Your task to perform on an android device: open device folders in google photos Image 0: 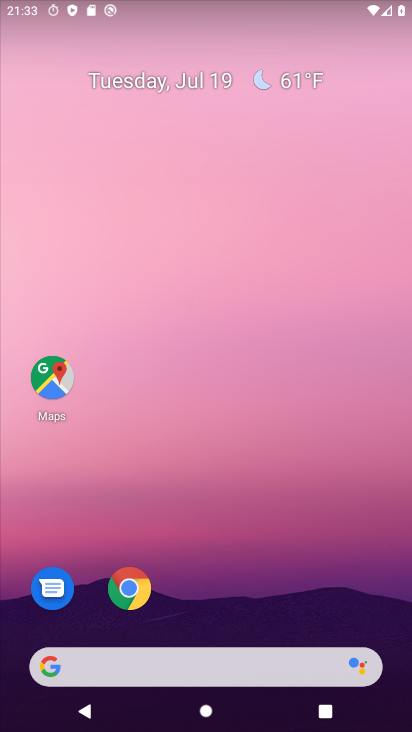
Step 0: press home button
Your task to perform on an android device: open device folders in google photos Image 1: 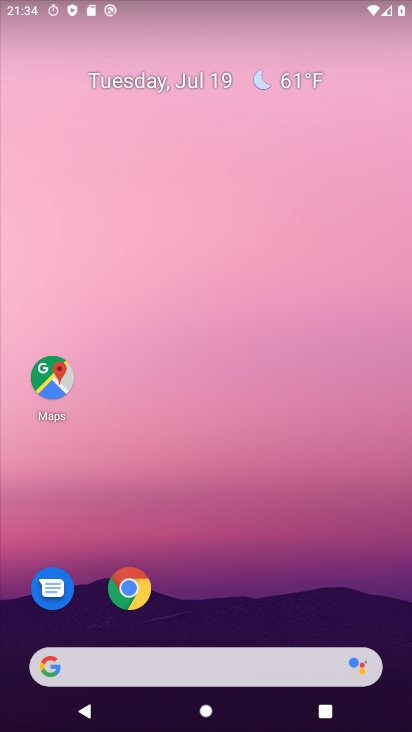
Step 1: drag from (227, 632) to (232, 3)
Your task to perform on an android device: open device folders in google photos Image 2: 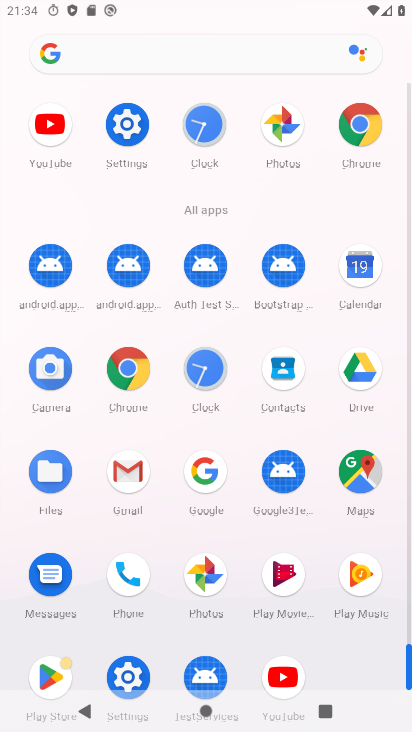
Step 2: click (280, 115)
Your task to perform on an android device: open device folders in google photos Image 3: 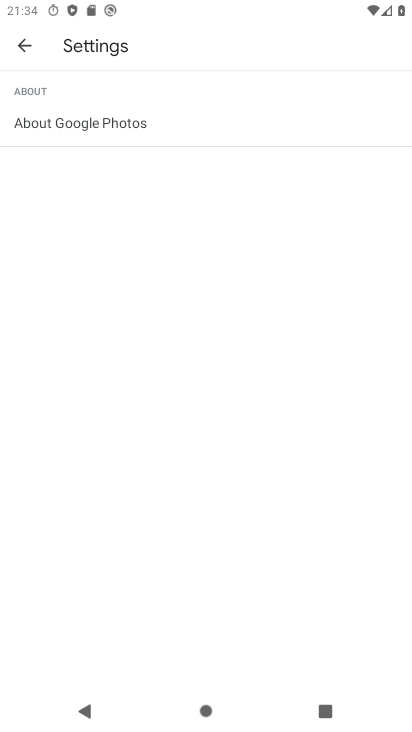
Step 3: click (25, 45)
Your task to perform on an android device: open device folders in google photos Image 4: 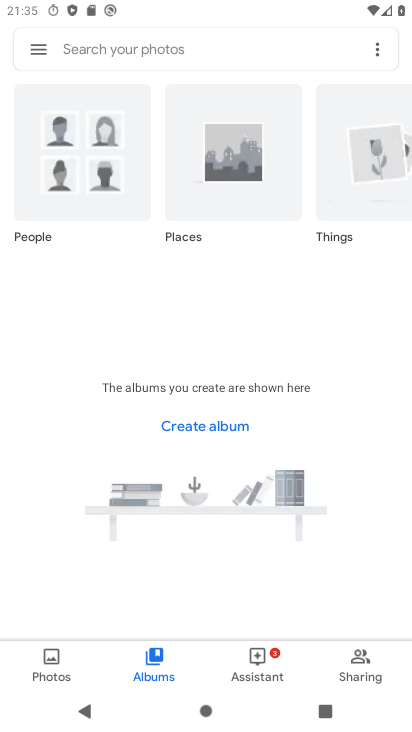
Step 4: click (35, 45)
Your task to perform on an android device: open device folders in google photos Image 5: 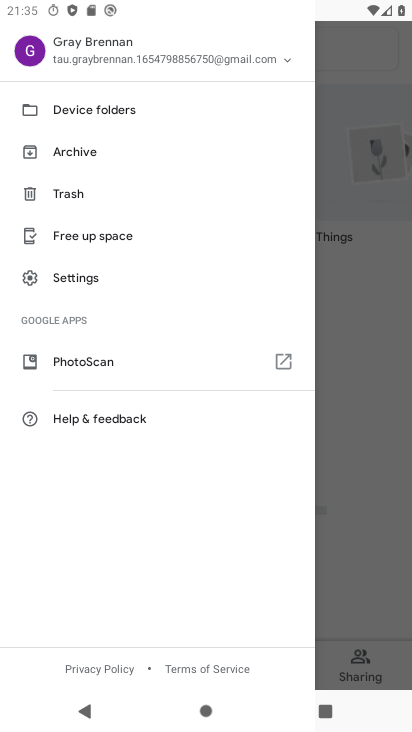
Step 5: click (104, 110)
Your task to perform on an android device: open device folders in google photos Image 6: 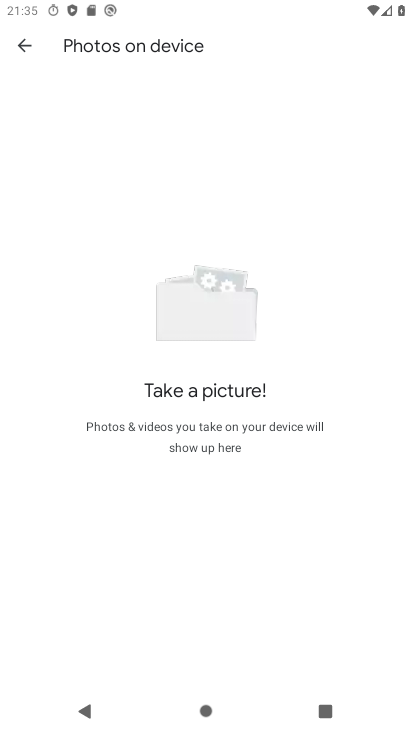
Step 6: task complete